Your task to perform on an android device: Set the phone to "Do not disturb". Image 0: 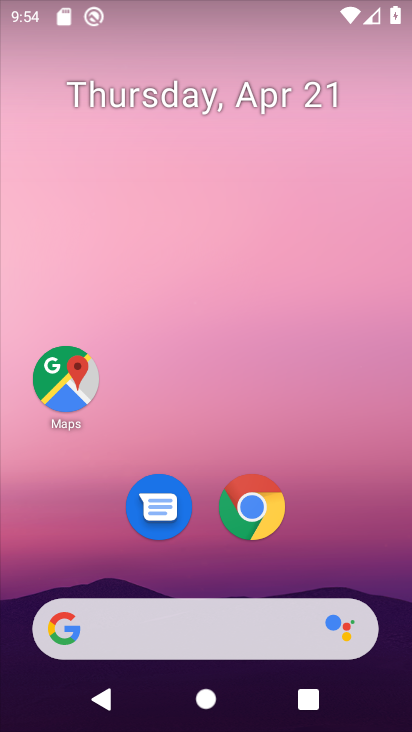
Step 0: drag from (192, 596) to (231, 255)
Your task to perform on an android device: Set the phone to "Do not disturb". Image 1: 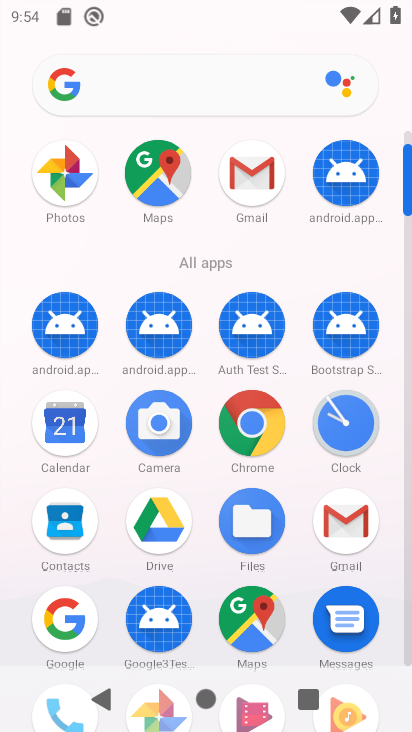
Step 1: drag from (112, 608) to (112, 298)
Your task to perform on an android device: Set the phone to "Do not disturb". Image 2: 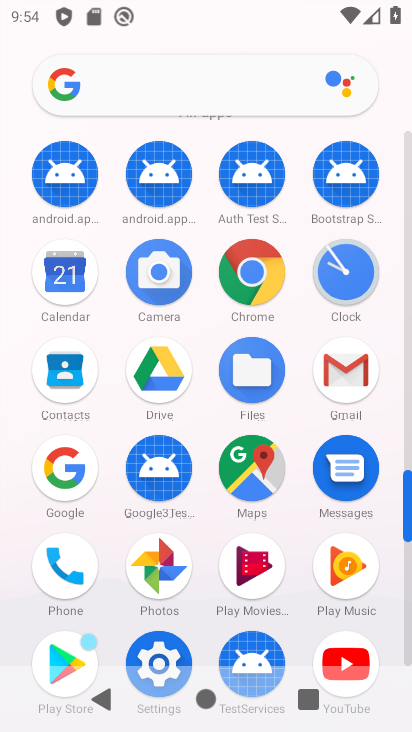
Step 2: drag from (113, 635) to (104, 312)
Your task to perform on an android device: Set the phone to "Do not disturb". Image 3: 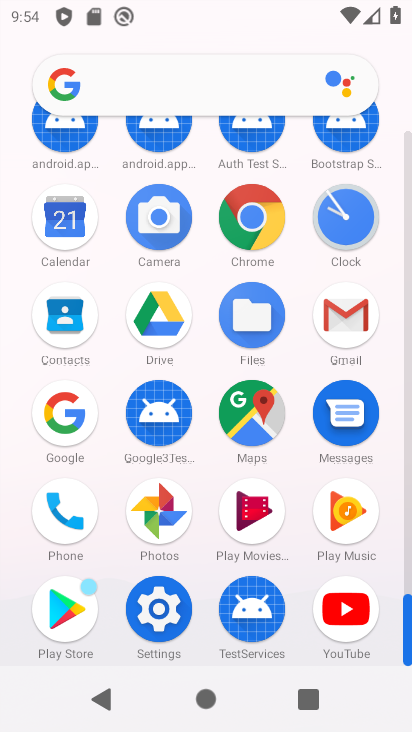
Step 3: click (166, 620)
Your task to perform on an android device: Set the phone to "Do not disturb". Image 4: 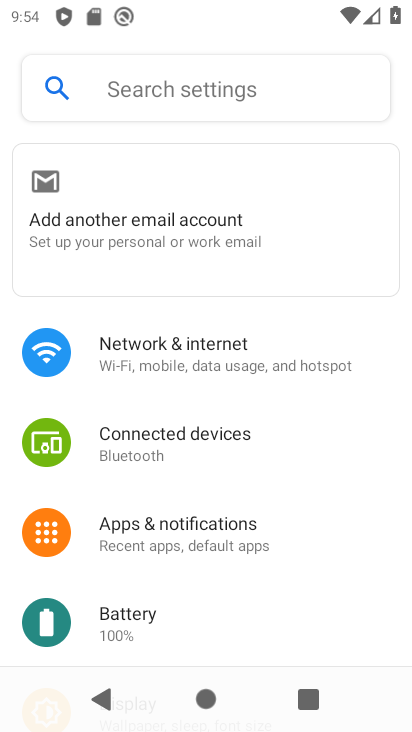
Step 4: drag from (184, 623) to (191, 321)
Your task to perform on an android device: Set the phone to "Do not disturb". Image 5: 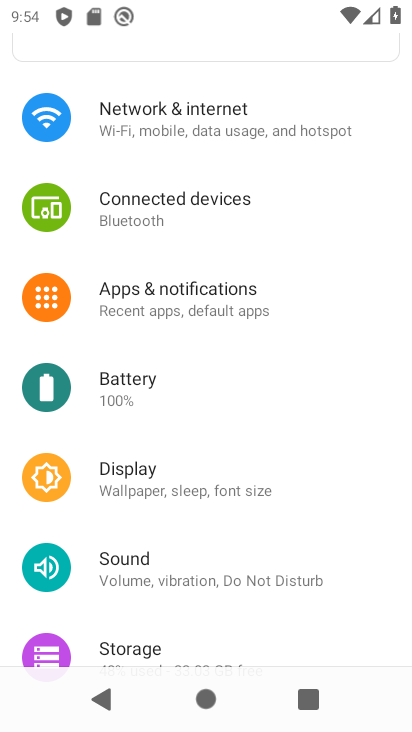
Step 5: drag from (187, 618) to (189, 288)
Your task to perform on an android device: Set the phone to "Do not disturb". Image 6: 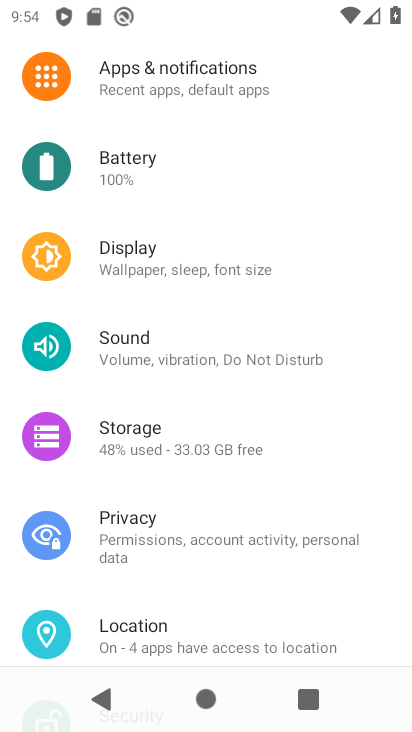
Step 6: click (216, 360)
Your task to perform on an android device: Set the phone to "Do not disturb". Image 7: 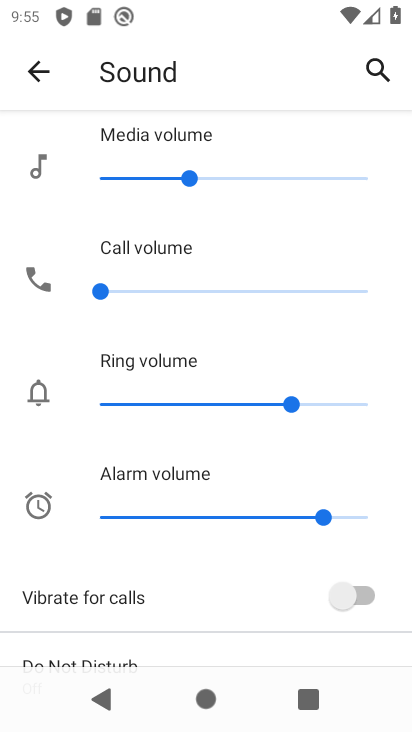
Step 7: drag from (181, 598) to (169, 294)
Your task to perform on an android device: Set the phone to "Do not disturb". Image 8: 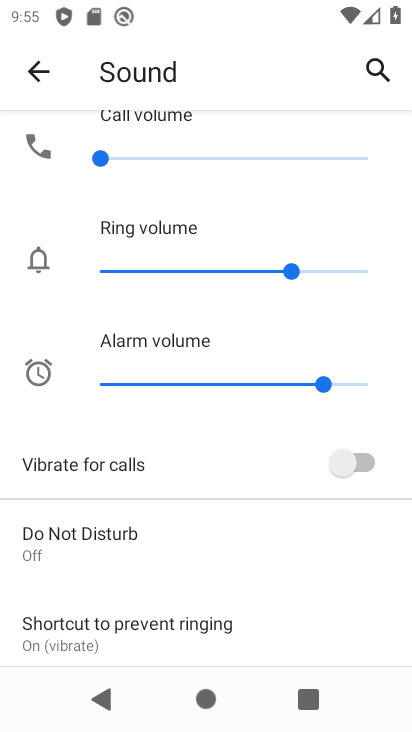
Step 8: click (145, 541)
Your task to perform on an android device: Set the phone to "Do not disturb". Image 9: 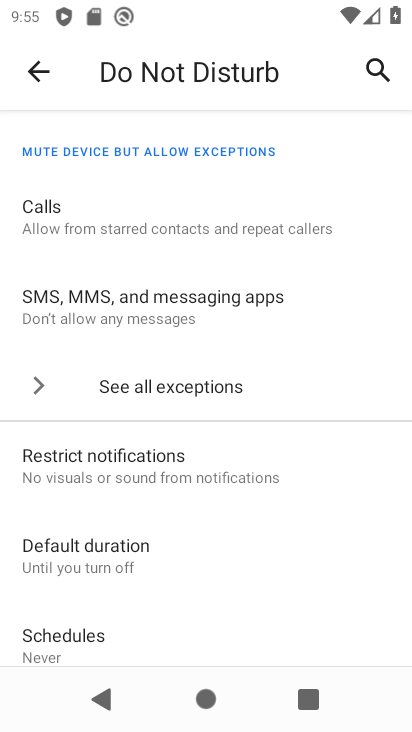
Step 9: drag from (126, 638) to (142, 298)
Your task to perform on an android device: Set the phone to "Do not disturb". Image 10: 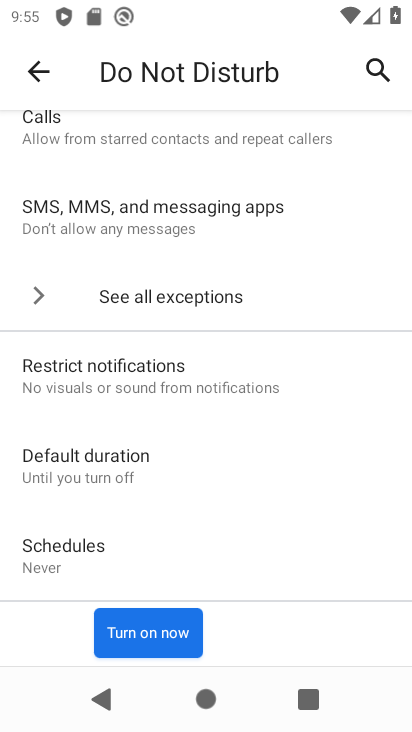
Step 10: click (165, 631)
Your task to perform on an android device: Set the phone to "Do not disturb". Image 11: 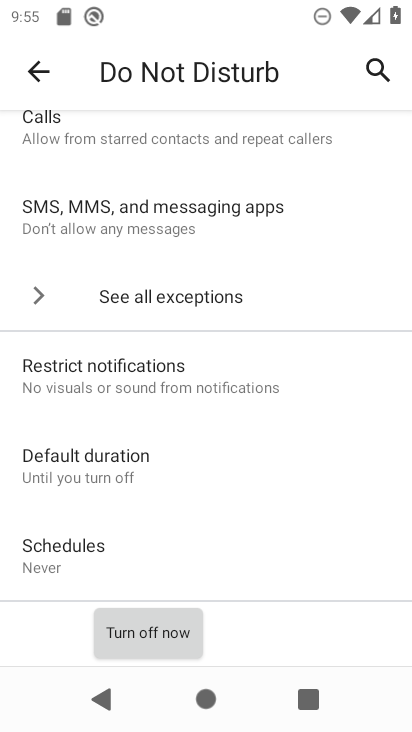
Step 11: task complete